Your task to perform on an android device: Open sound settings Image 0: 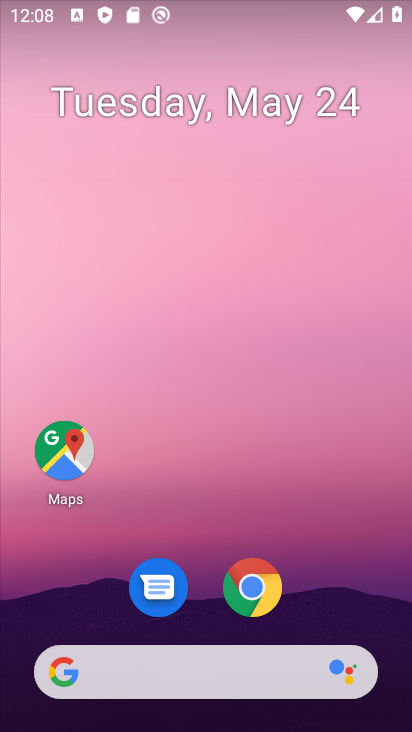
Step 0: drag from (212, 721) to (269, 233)
Your task to perform on an android device: Open sound settings Image 1: 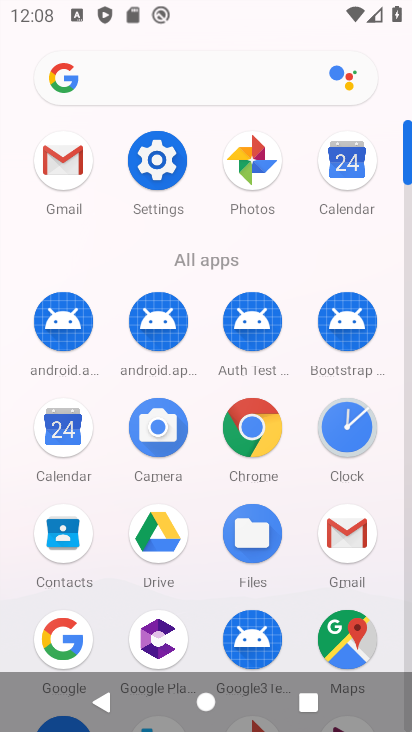
Step 1: click (152, 169)
Your task to perform on an android device: Open sound settings Image 2: 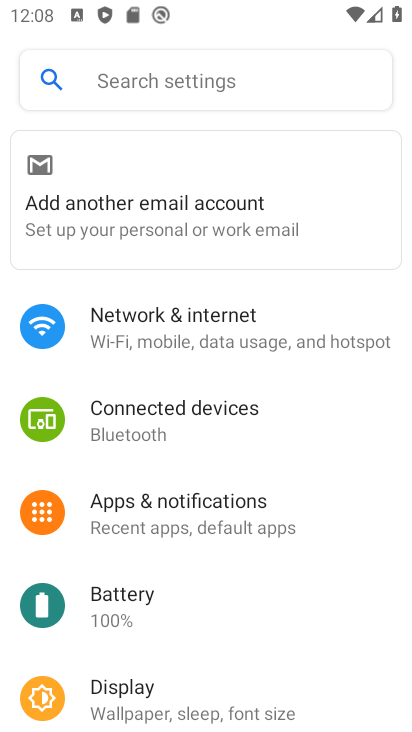
Step 2: drag from (269, 670) to (297, 147)
Your task to perform on an android device: Open sound settings Image 3: 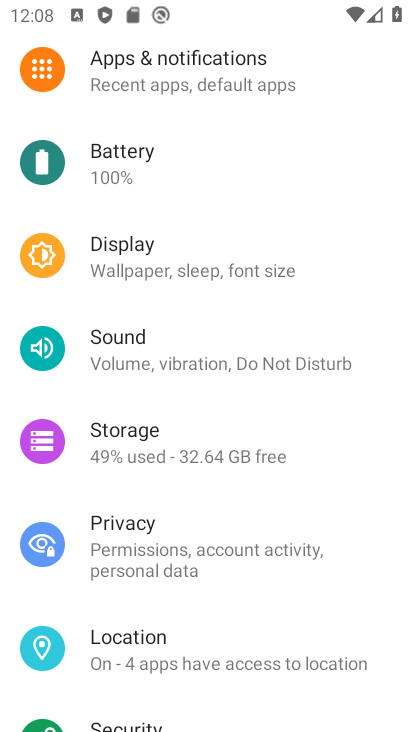
Step 3: click (235, 367)
Your task to perform on an android device: Open sound settings Image 4: 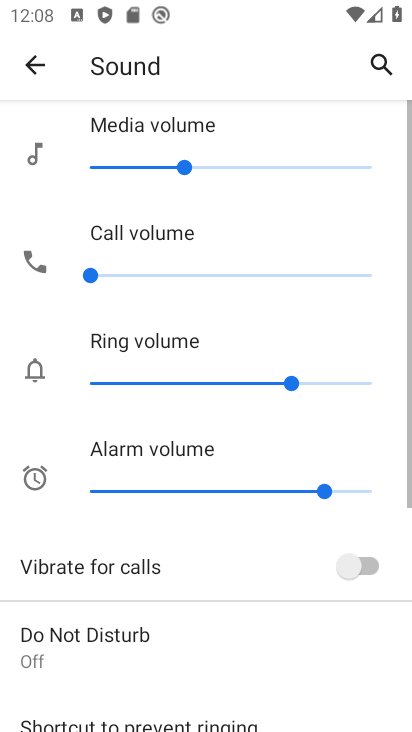
Step 4: task complete